Your task to perform on an android device: Open Chrome and go to the settings page Image 0: 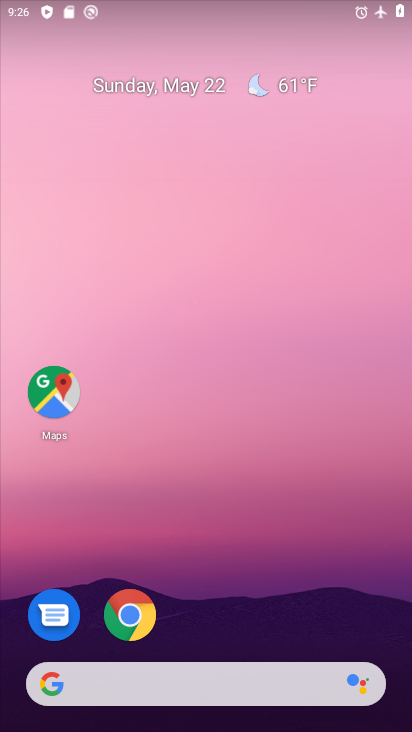
Step 0: click (141, 621)
Your task to perform on an android device: Open Chrome and go to the settings page Image 1: 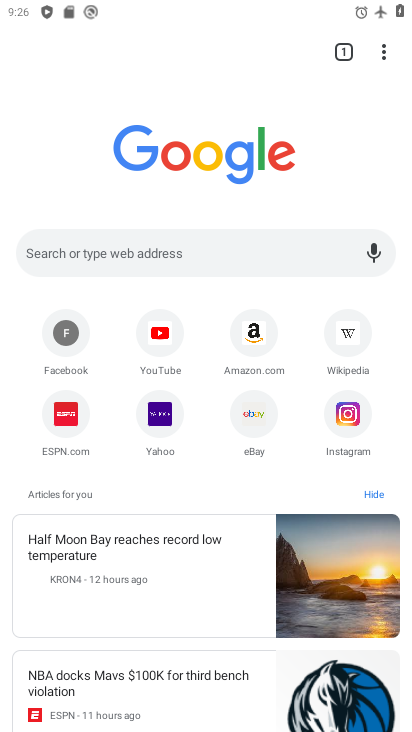
Step 1: task complete